Your task to perform on an android device: Go to ESPN.com Image 0: 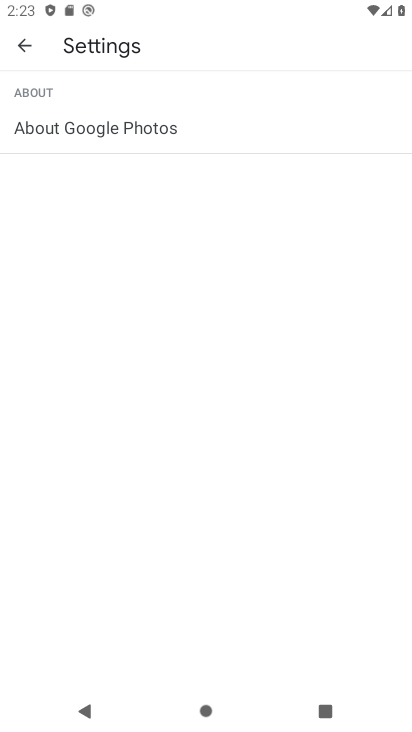
Step 0: press home button
Your task to perform on an android device: Go to ESPN.com Image 1: 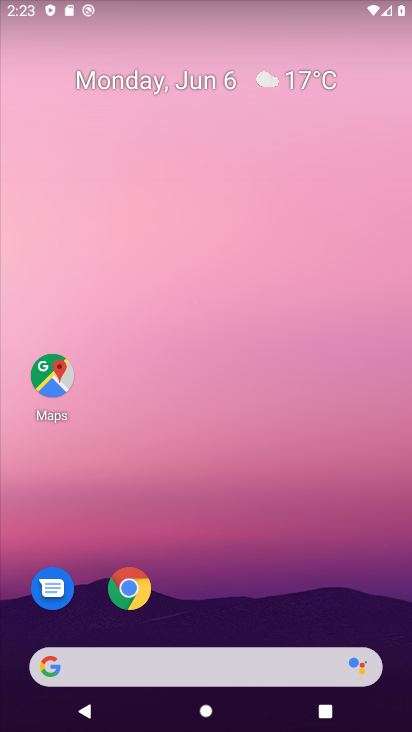
Step 1: click (127, 611)
Your task to perform on an android device: Go to ESPN.com Image 2: 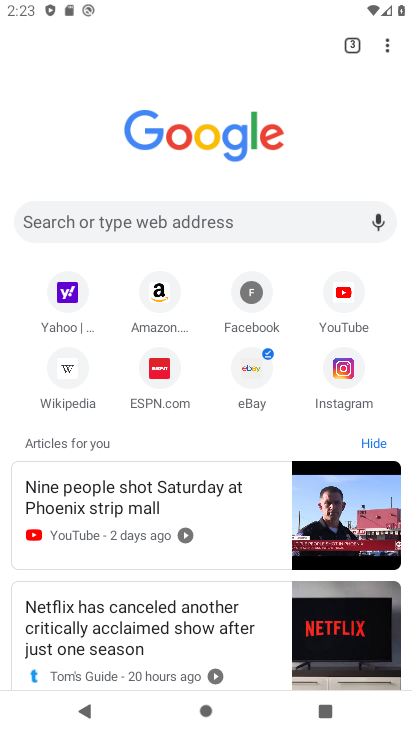
Step 2: click (153, 376)
Your task to perform on an android device: Go to ESPN.com Image 3: 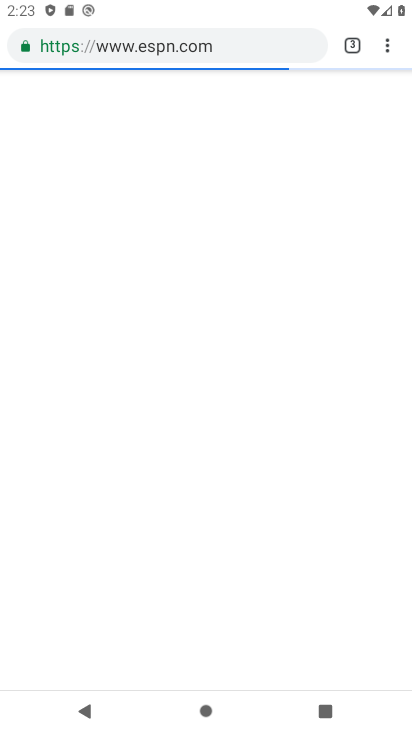
Step 3: task complete